Your task to perform on an android device: change the clock display to show seconds Image 0: 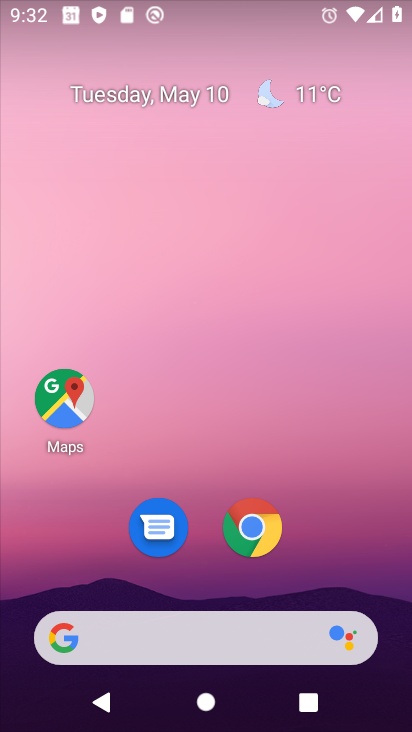
Step 0: drag from (373, 555) to (305, 124)
Your task to perform on an android device: change the clock display to show seconds Image 1: 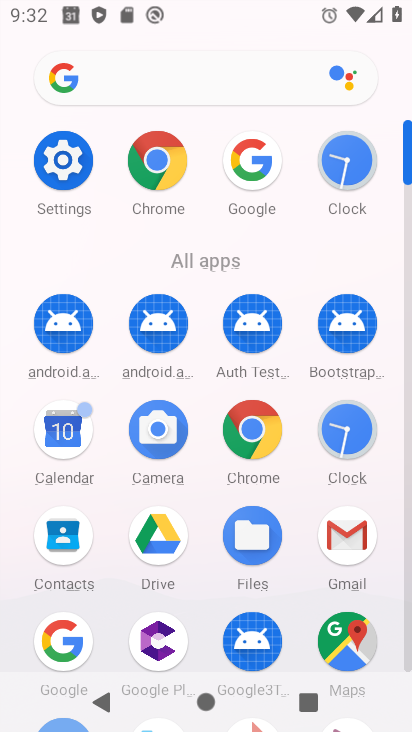
Step 1: click (333, 447)
Your task to perform on an android device: change the clock display to show seconds Image 2: 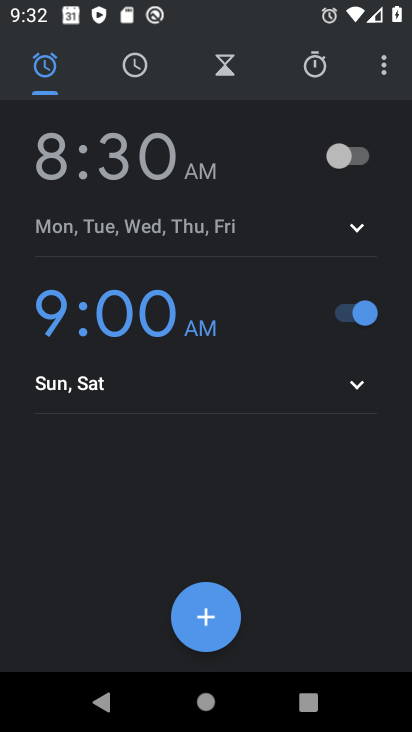
Step 2: click (376, 57)
Your task to perform on an android device: change the clock display to show seconds Image 3: 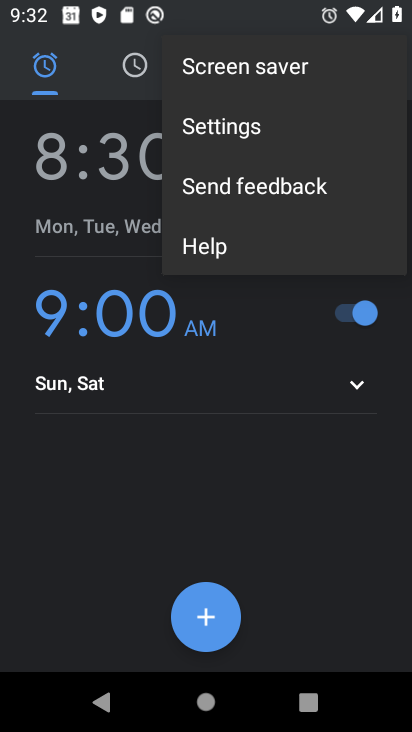
Step 3: click (288, 116)
Your task to perform on an android device: change the clock display to show seconds Image 4: 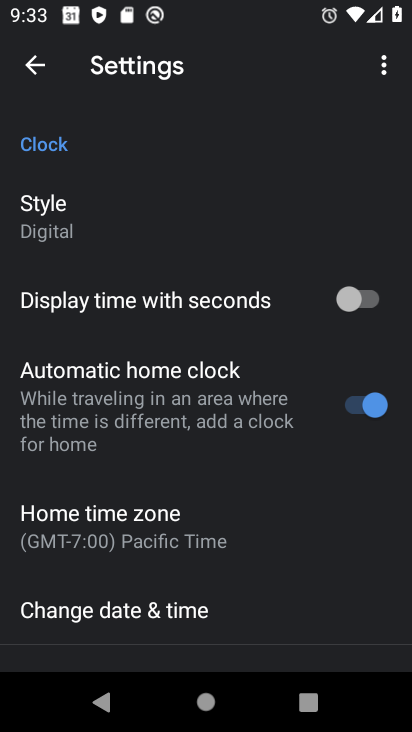
Step 4: click (363, 304)
Your task to perform on an android device: change the clock display to show seconds Image 5: 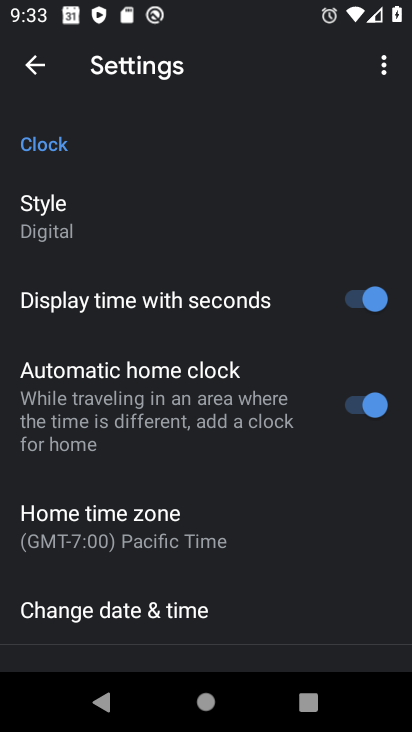
Step 5: task complete